Your task to perform on an android device: empty trash in the gmail app Image 0: 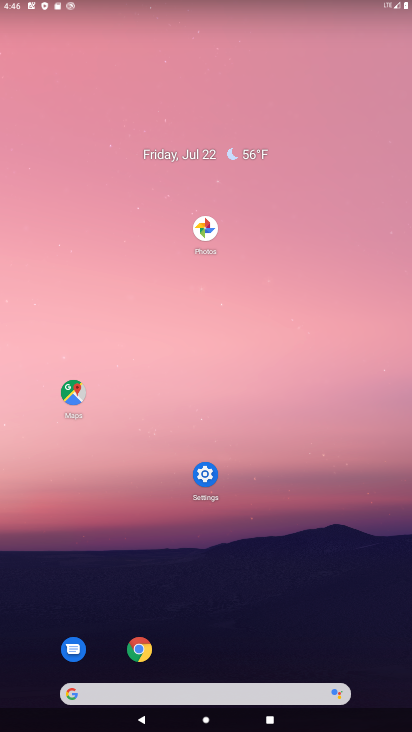
Step 0: drag from (252, 699) to (188, 145)
Your task to perform on an android device: empty trash in the gmail app Image 1: 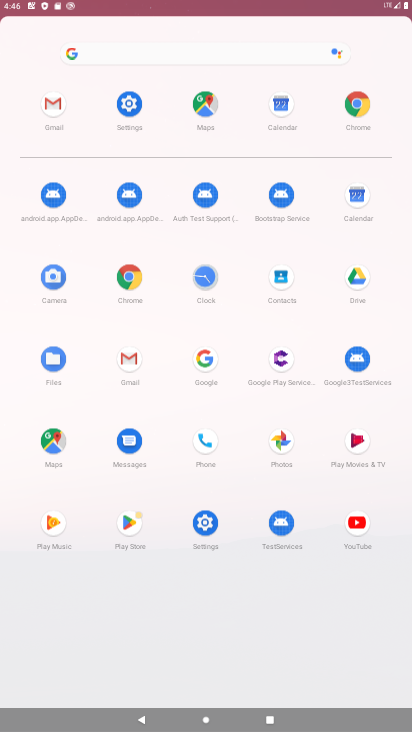
Step 1: drag from (272, 598) to (180, 111)
Your task to perform on an android device: empty trash in the gmail app Image 2: 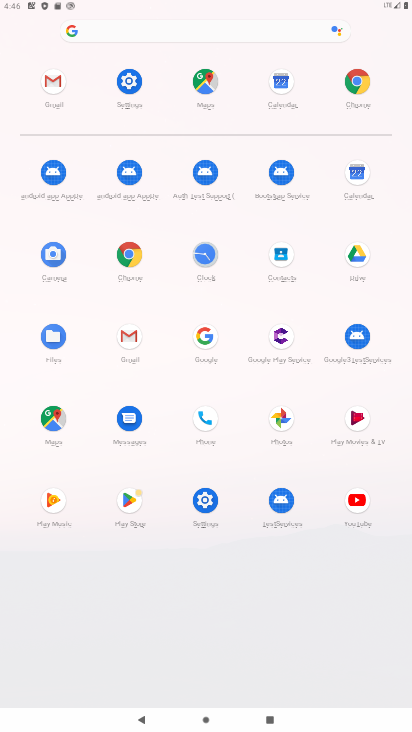
Step 2: click (128, 328)
Your task to perform on an android device: empty trash in the gmail app Image 3: 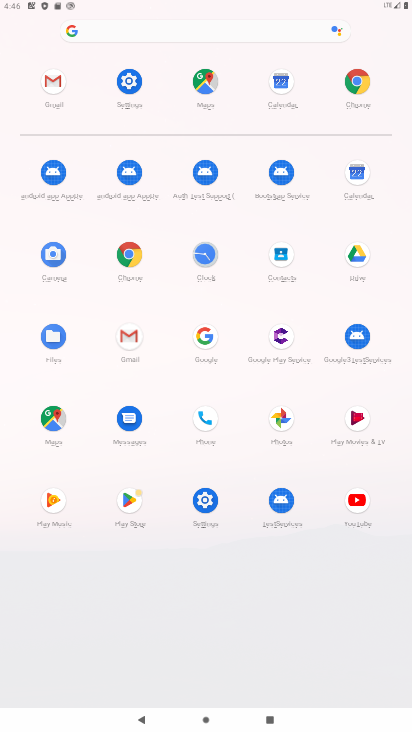
Step 3: click (126, 330)
Your task to perform on an android device: empty trash in the gmail app Image 4: 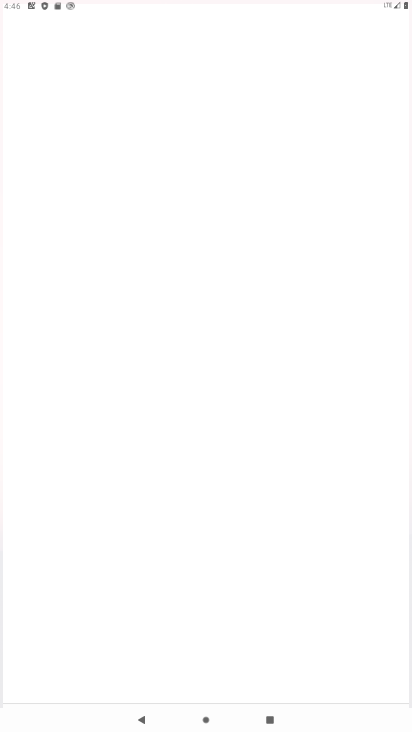
Step 4: click (126, 330)
Your task to perform on an android device: empty trash in the gmail app Image 5: 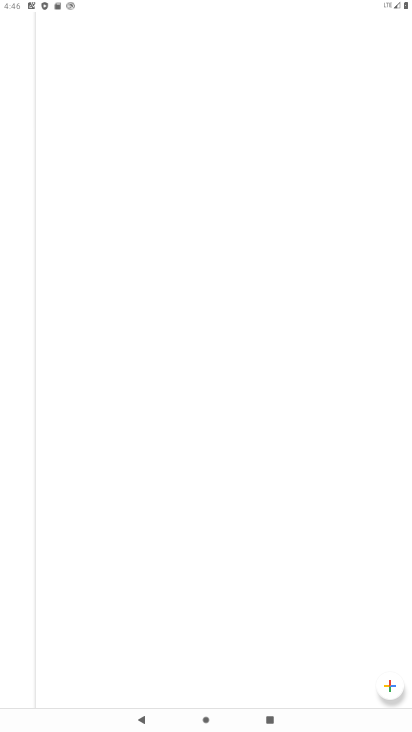
Step 5: click (126, 330)
Your task to perform on an android device: empty trash in the gmail app Image 6: 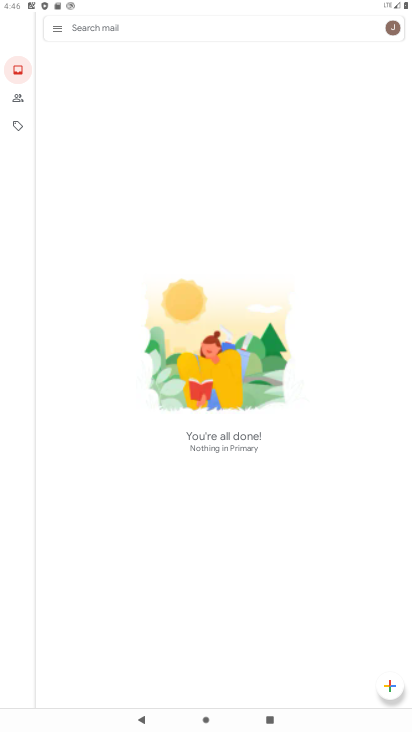
Step 6: click (48, 15)
Your task to perform on an android device: empty trash in the gmail app Image 7: 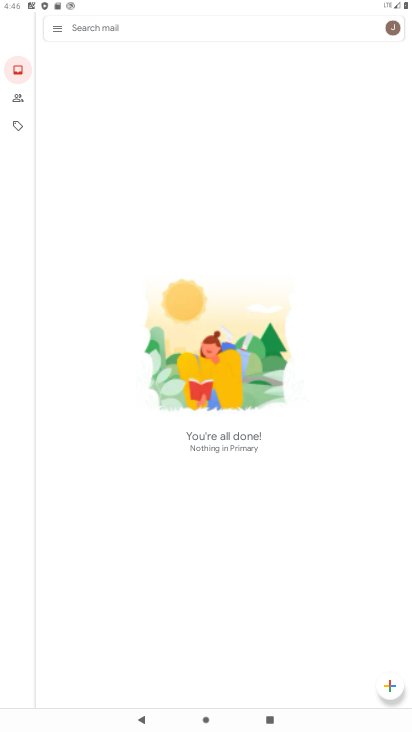
Step 7: click (50, 21)
Your task to perform on an android device: empty trash in the gmail app Image 8: 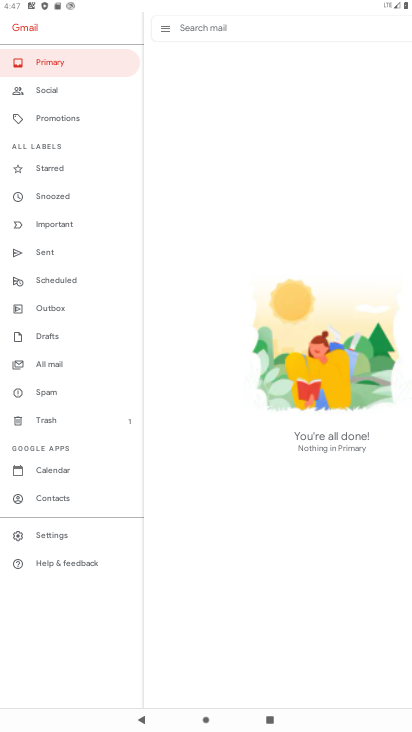
Step 8: click (48, 417)
Your task to perform on an android device: empty trash in the gmail app Image 9: 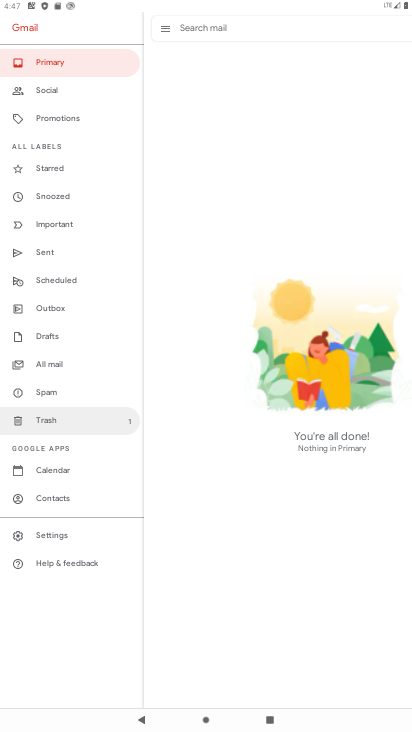
Step 9: click (54, 429)
Your task to perform on an android device: empty trash in the gmail app Image 10: 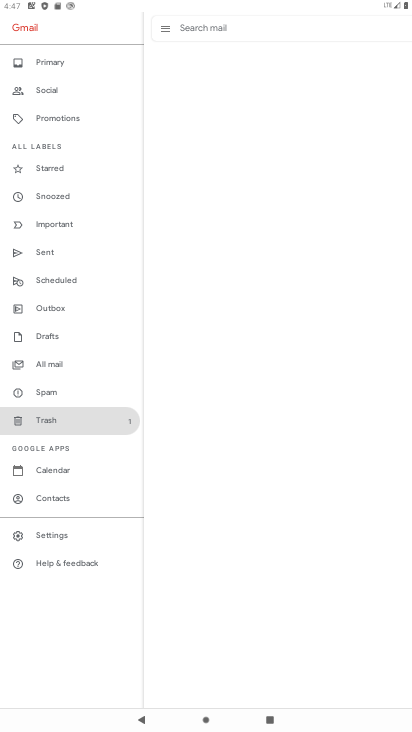
Step 10: click (54, 429)
Your task to perform on an android device: empty trash in the gmail app Image 11: 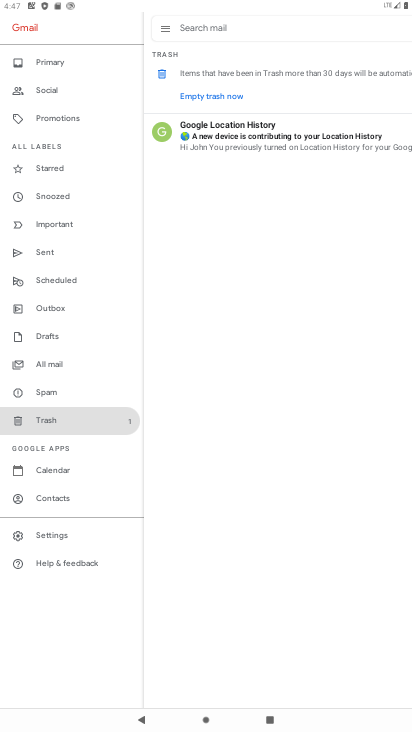
Step 11: click (49, 417)
Your task to perform on an android device: empty trash in the gmail app Image 12: 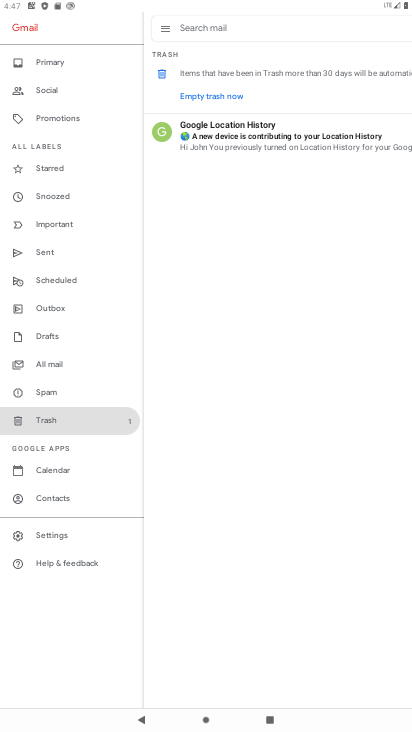
Step 12: click (47, 405)
Your task to perform on an android device: empty trash in the gmail app Image 13: 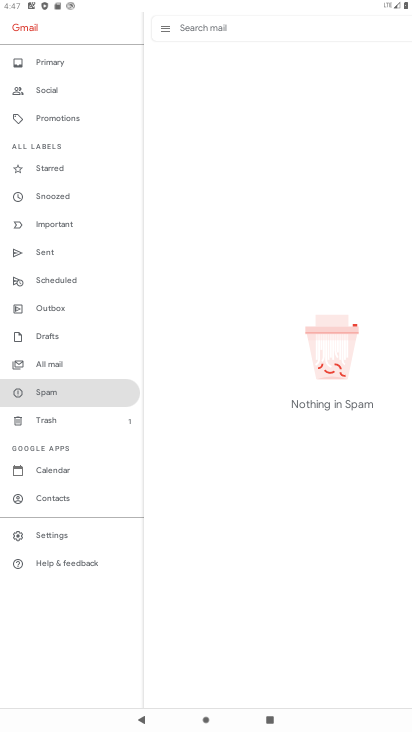
Step 13: click (50, 422)
Your task to perform on an android device: empty trash in the gmail app Image 14: 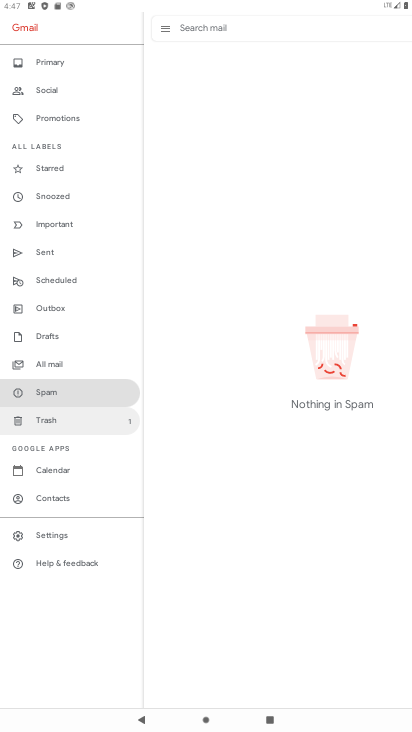
Step 14: click (47, 420)
Your task to perform on an android device: empty trash in the gmail app Image 15: 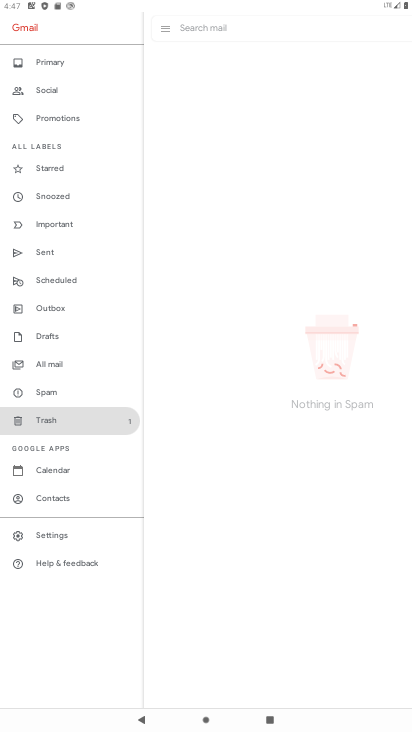
Step 15: click (47, 417)
Your task to perform on an android device: empty trash in the gmail app Image 16: 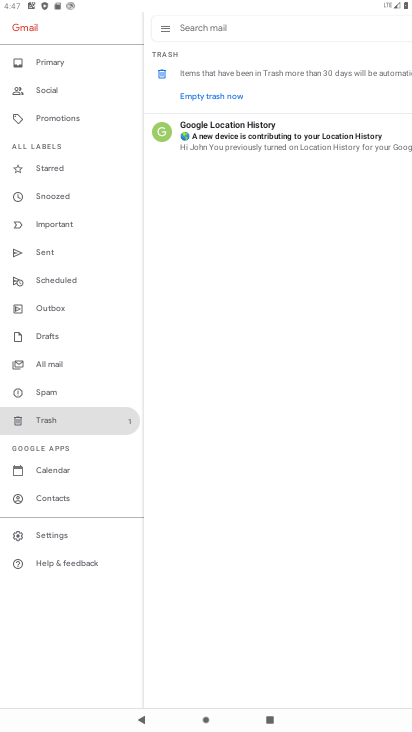
Step 16: click (65, 421)
Your task to perform on an android device: empty trash in the gmail app Image 17: 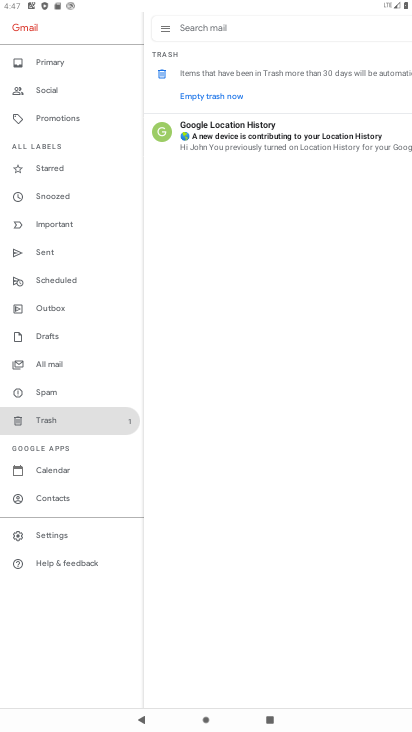
Step 17: click (65, 421)
Your task to perform on an android device: empty trash in the gmail app Image 18: 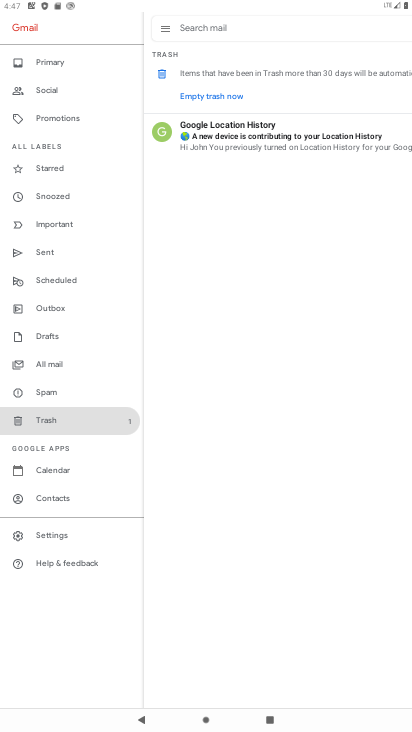
Step 18: click (65, 422)
Your task to perform on an android device: empty trash in the gmail app Image 19: 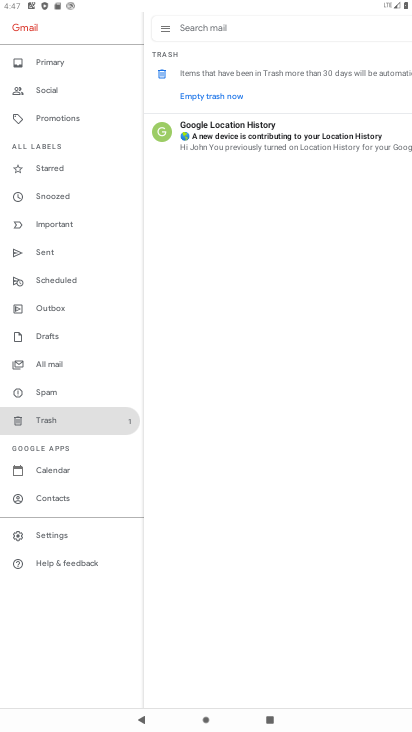
Step 19: click (69, 420)
Your task to perform on an android device: empty trash in the gmail app Image 20: 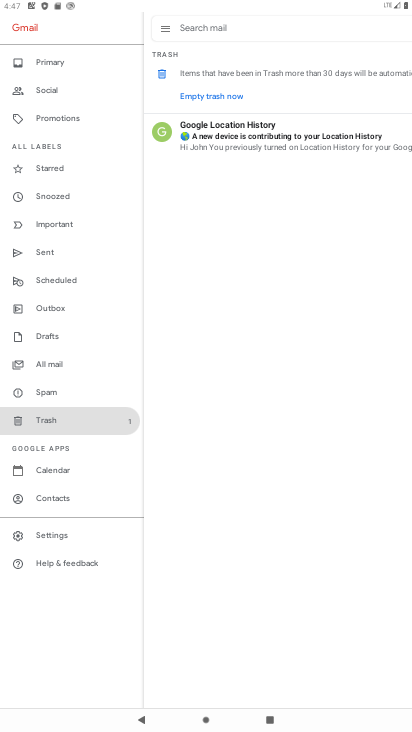
Step 20: click (276, 141)
Your task to perform on an android device: empty trash in the gmail app Image 21: 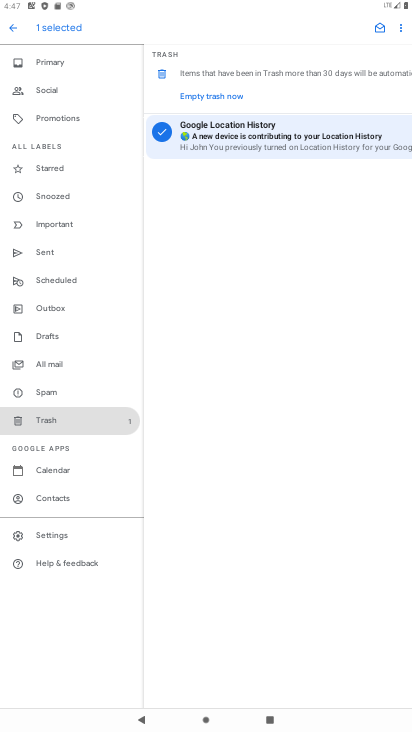
Step 21: click (242, 232)
Your task to perform on an android device: empty trash in the gmail app Image 22: 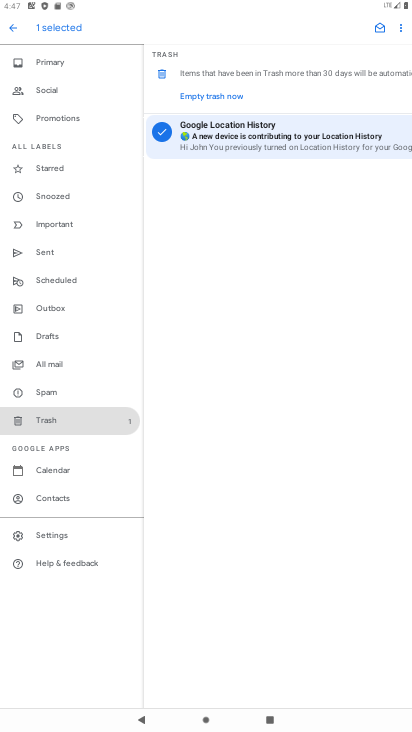
Step 22: click (193, 86)
Your task to perform on an android device: empty trash in the gmail app Image 23: 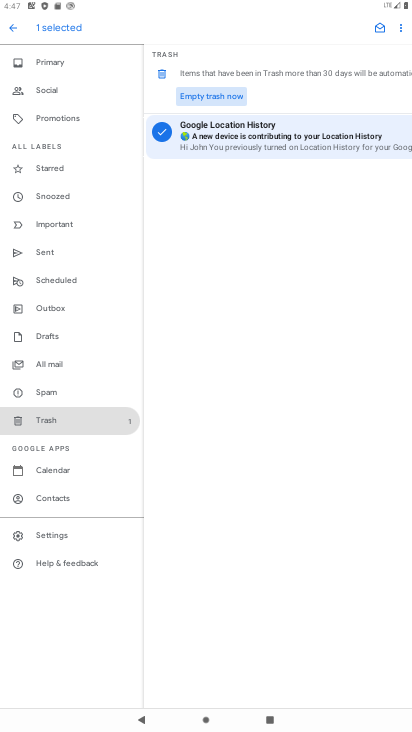
Step 23: click (200, 100)
Your task to perform on an android device: empty trash in the gmail app Image 24: 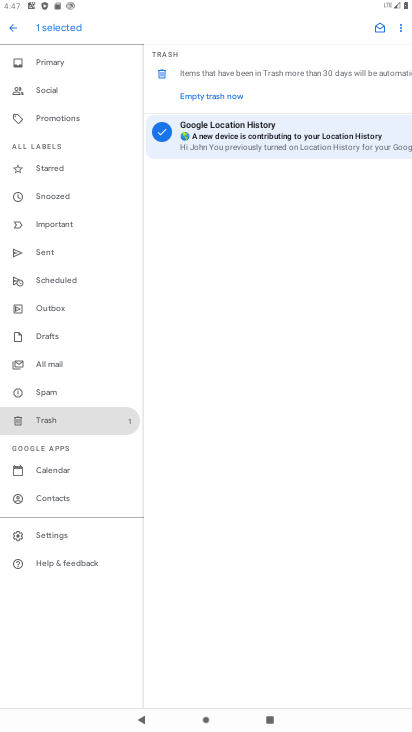
Step 24: click (217, 97)
Your task to perform on an android device: empty trash in the gmail app Image 25: 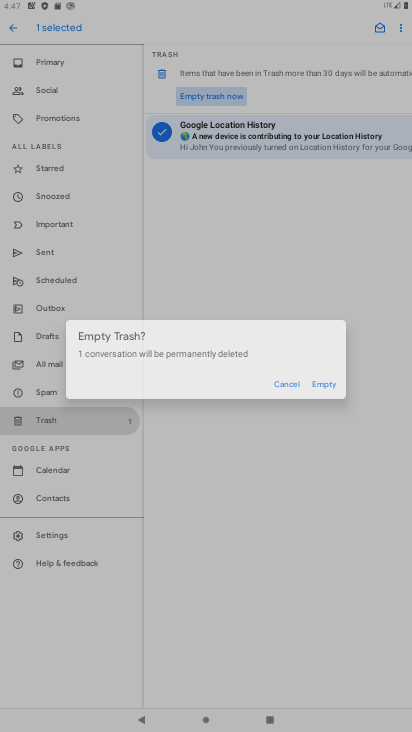
Step 25: click (221, 92)
Your task to perform on an android device: empty trash in the gmail app Image 26: 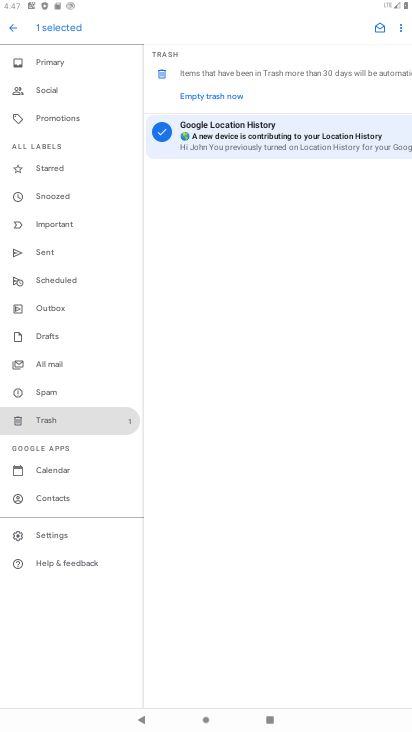
Step 26: click (212, 89)
Your task to perform on an android device: empty trash in the gmail app Image 27: 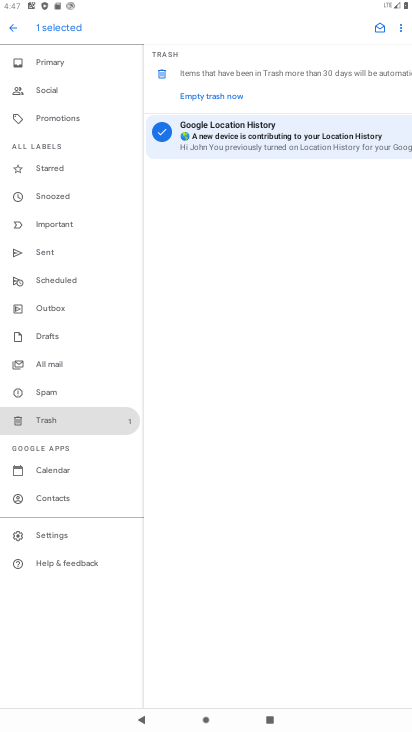
Step 27: click (213, 89)
Your task to perform on an android device: empty trash in the gmail app Image 28: 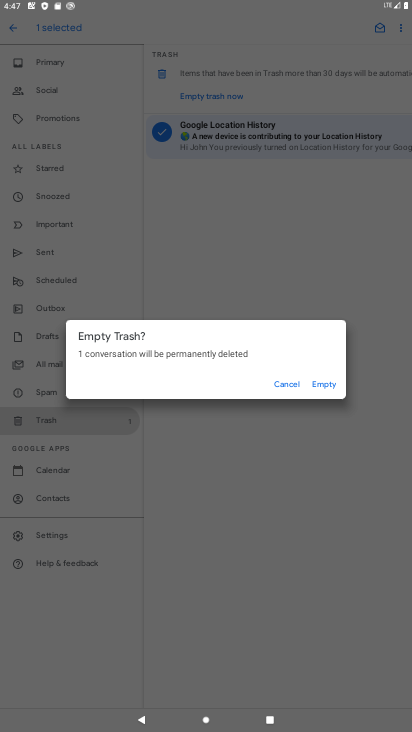
Step 28: click (327, 390)
Your task to perform on an android device: empty trash in the gmail app Image 29: 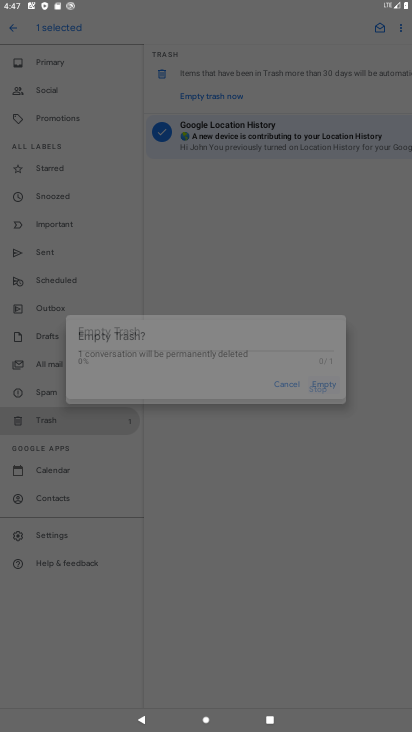
Step 29: click (327, 386)
Your task to perform on an android device: empty trash in the gmail app Image 30: 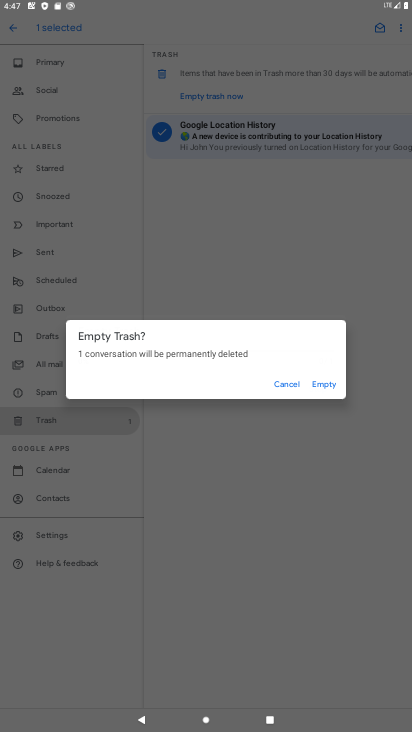
Step 30: click (328, 382)
Your task to perform on an android device: empty trash in the gmail app Image 31: 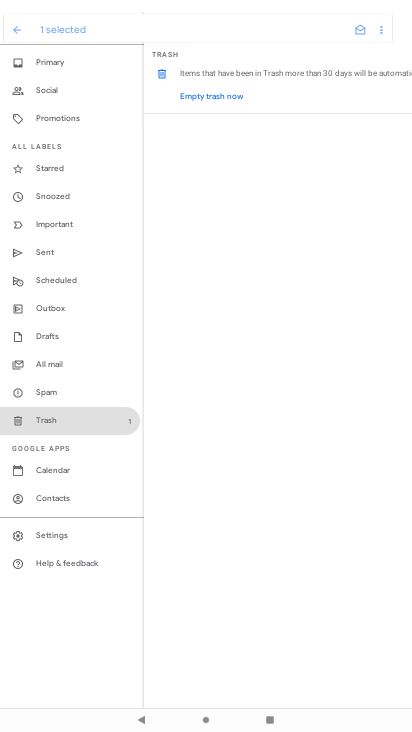
Step 31: click (322, 384)
Your task to perform on an android device: empty trash in the gmail app Image 32: 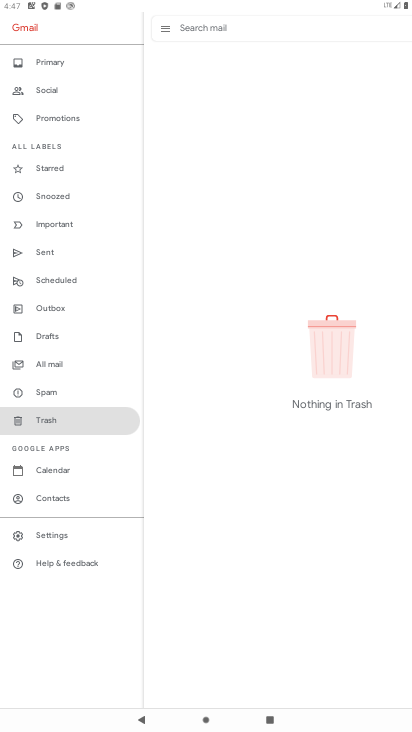
Step 32: task complete